Your task to perform on an android device: Do I have any events today? Image 0: 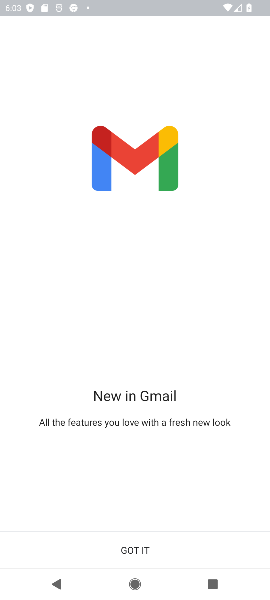
Step 0: press home button
Your task to perform on an android device: Do I have any events today? Image 1: 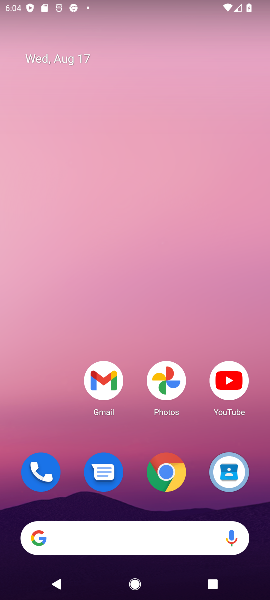
Step 1: drag from (136, 435) to (136, 88)
Your task to perform on an android device: Do I have any events today? Image 2: 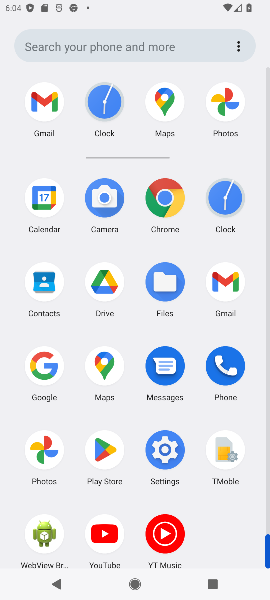
Step 2: click (51, 206)
Your task to perform on an android device: Do I have any events today? Image 3: 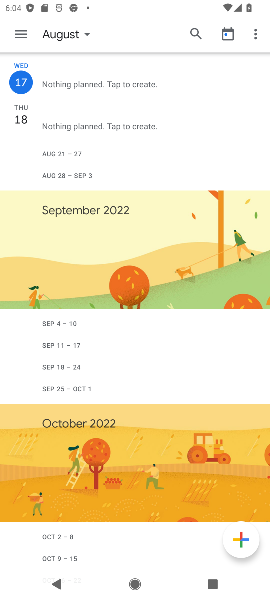
Step 3: click (86, 37)
Your task to perform on an android device: Do I have any events today? Image 4: 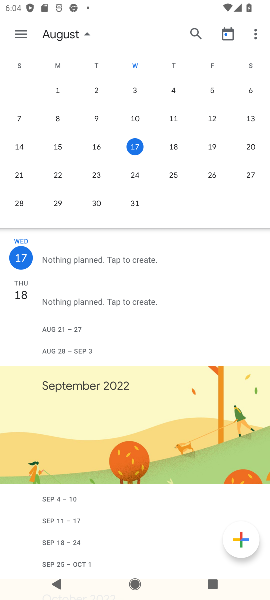
Step 4: click (167, 154)
Your task to perform on an android device: Do I have any events today? Image 5: 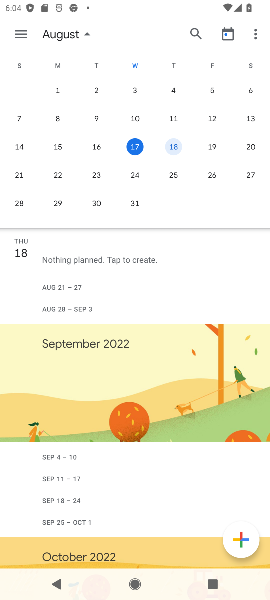
Step 5: click (142, 145)
Your task to perform on an android device: Do I have any events today? Image 6: 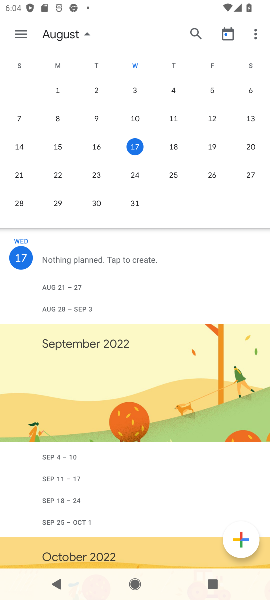
Step 6: task complete